Your task to perform on an android device: change the clock display to analog Image 0: 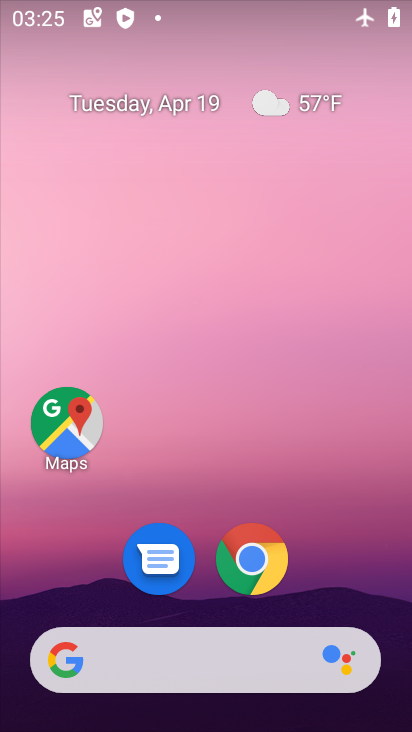
Step 0: drag from (210, 589) to (210, 200)
Your task to perform on an android device: change the clock display to analog Image 1: 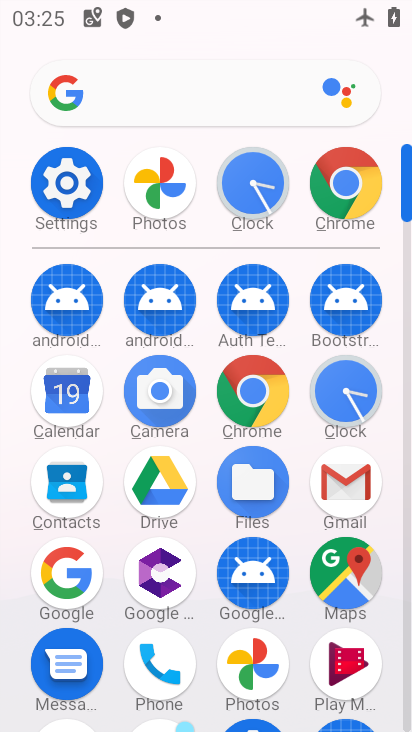
Step 1: click (345, 386)
Your task to perform on an android device: change the clock display to analog Image 2: 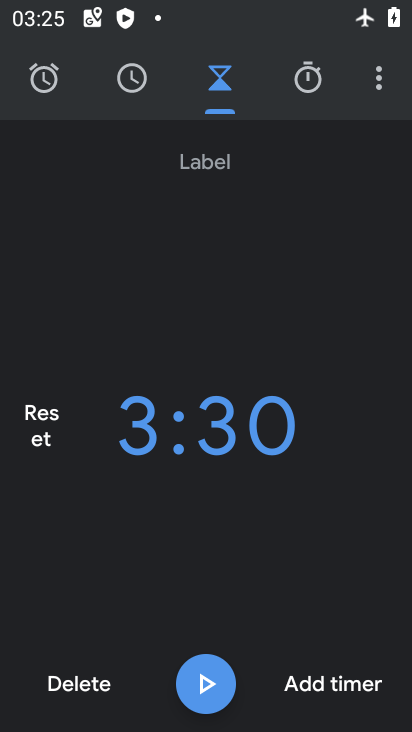
Step 2: click (379, 83)
Your task to perform on an android device: change the clock display to analog Image 3: 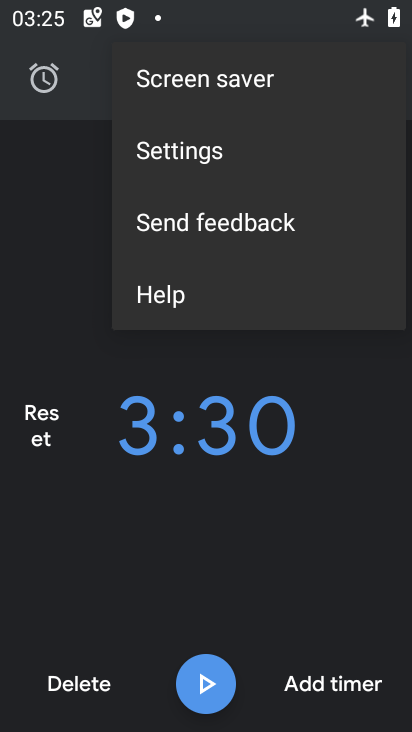
Step 3: click (241, 145)
Your task to perform on an android device: change the clock display to analog Image 4: 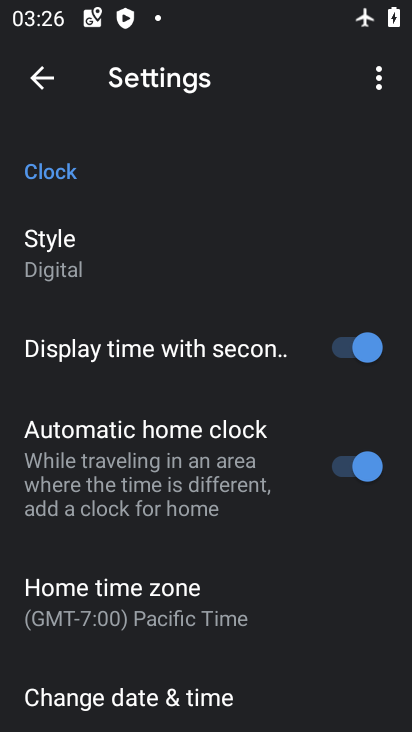
Step 4: click (129, 245)
Your task to perform on an android device: change the clock display to analog Image 5: 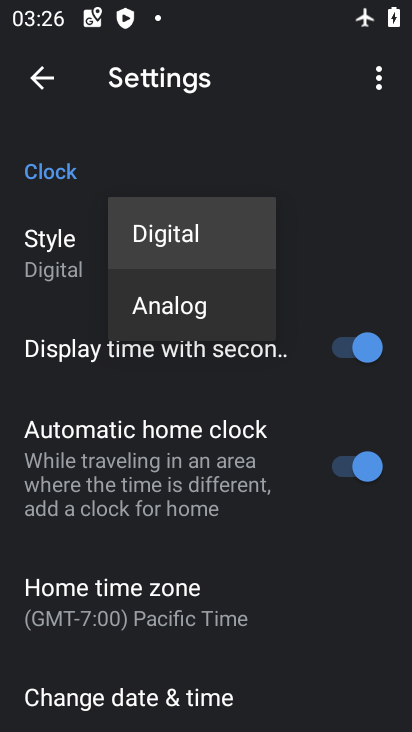
Step 5: click (153, 297)
Your task to perform on an android device: change the clock display to analog Image 6: 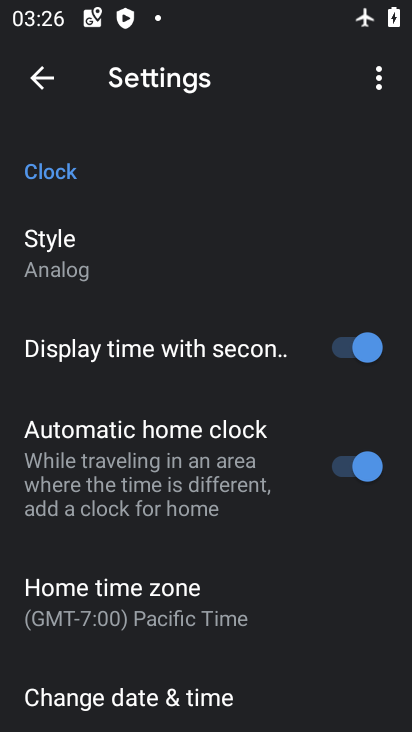
Step 6: task complete